Your task to perform on an android device: When is my next meeting? Image 0: 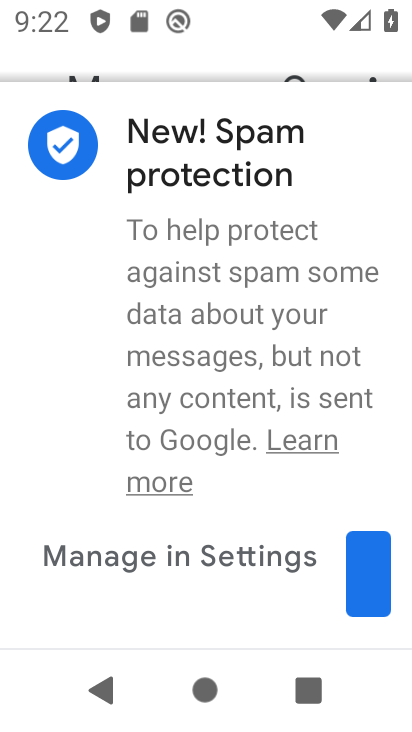
Step 0: press home button
Your task to perform on an android device: When is my next meeting? Image 1: 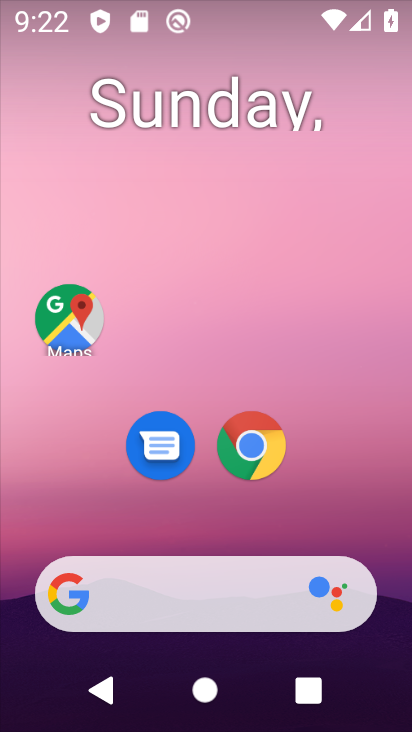
Step 1: drag from (158, 500) to (205, 217)
Your task to perform on an android device: When is my next meeting? Image 2: 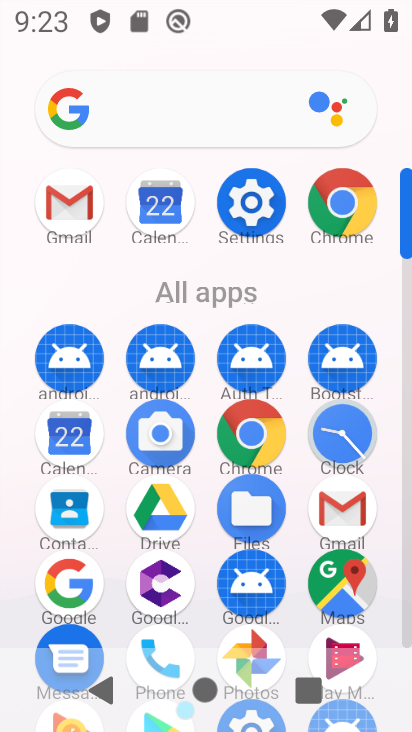
Step 2: click (68, 446)
Your task to perform on an android device: When is my next meeting? Image 3: 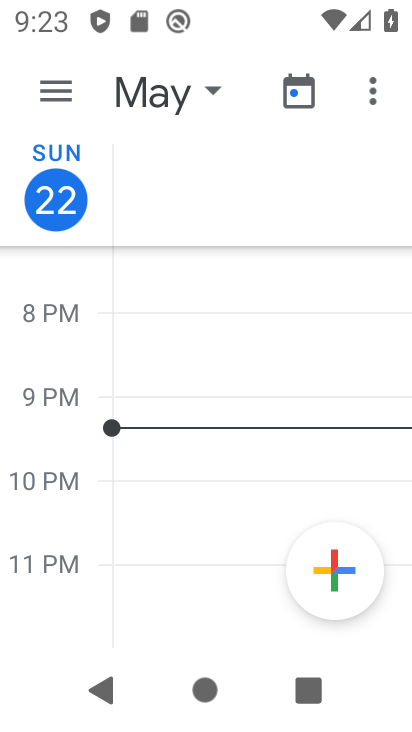
Step 3: click (44, 97)
Your task to perform on an android device: When is my next meeting? Image 4: 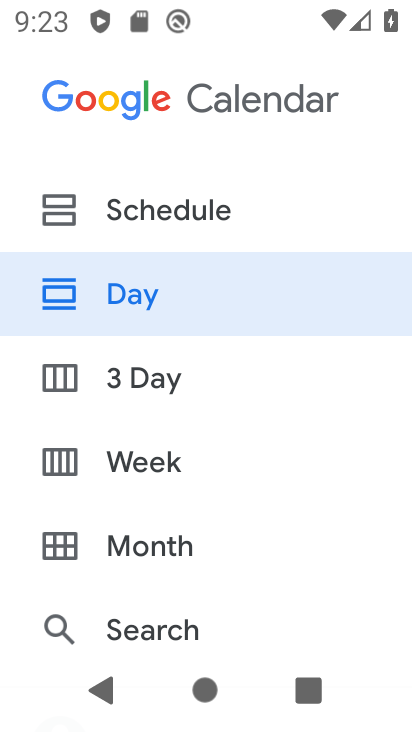
Step 4: click (193, 224)
Your task to perform on an android device: When is my next meeting? Image 5: 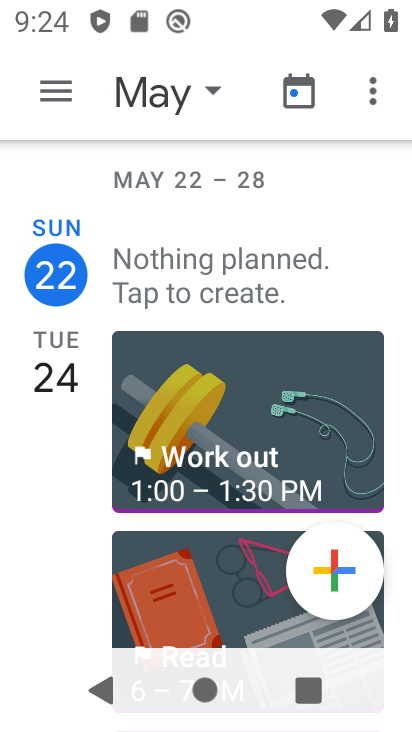
Step 5: click (204, 92)
Your task to perform on an android device: When is my next meeting? Image 6: 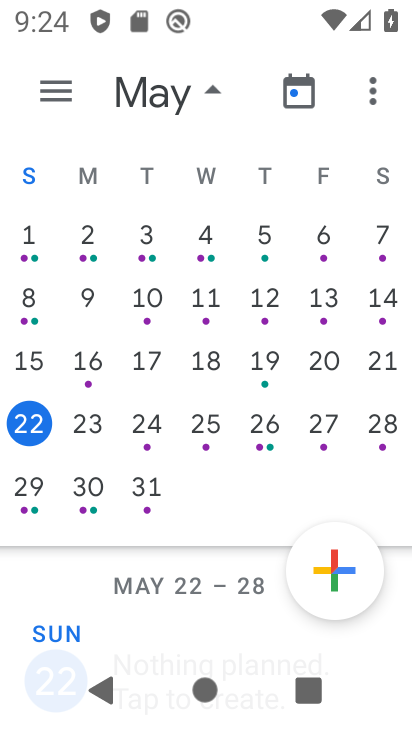
Step 6: click (89, 420)
Your task to perform on an android device: When is my next meeting? Image 7: 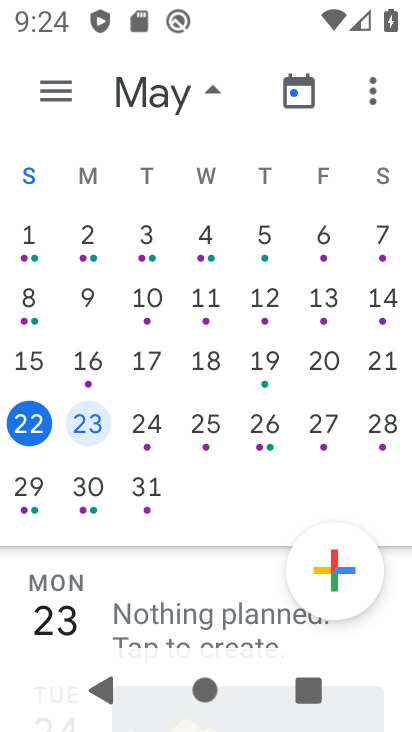
Step 7: task complete